Your task to perform on an android device: Open the Play Movies app and select the watchlist tab. Image 0: 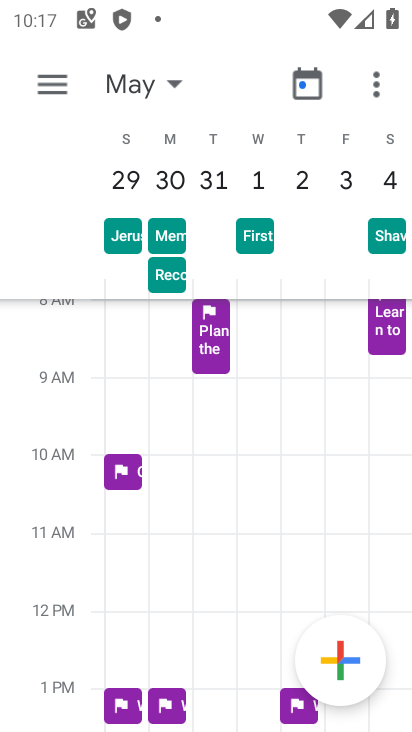
Step 0: press home button
Your task to perform on an android device: Open the Play Movies app and select the watchlist tab. Image 1: 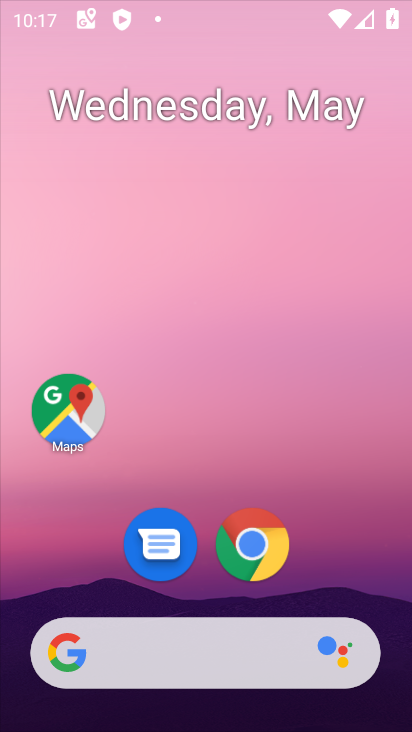
Step 1: drag from (228, 665) to (352, 105)
Your task to perform on an android device: Open the Play Movies app and select the watchlist tab. Image 2: 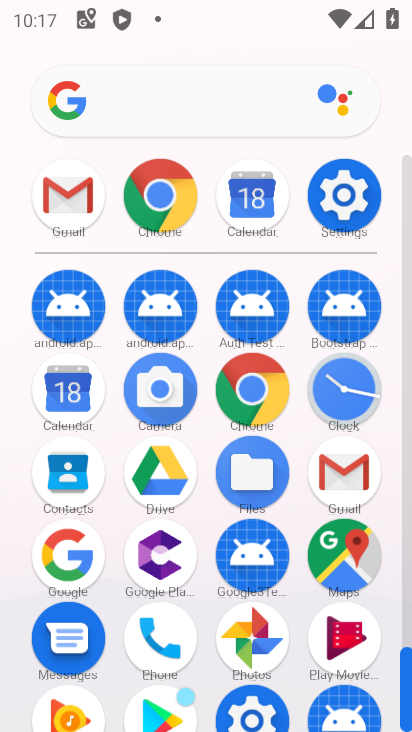
Step 2: click (345, 650)
Your task to perform on an android device: Open the Play Movies app and select the watchlist tab. Image 3: 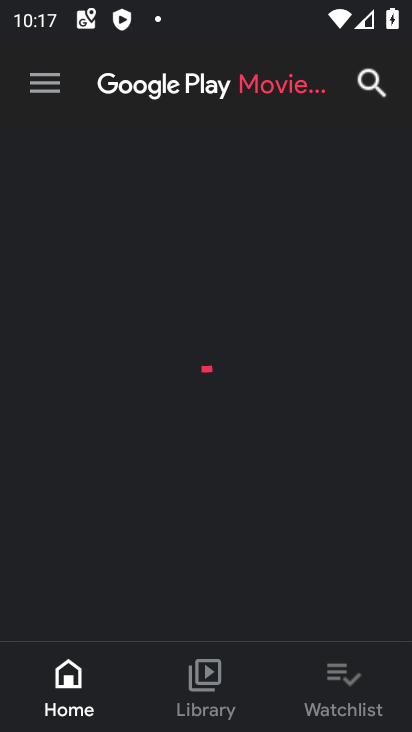
Step 3: drag from (300, 711) to (269, 435)
Your task to perform on an android device: Open the Play Movies app and select the watchlist tab. Image 4: 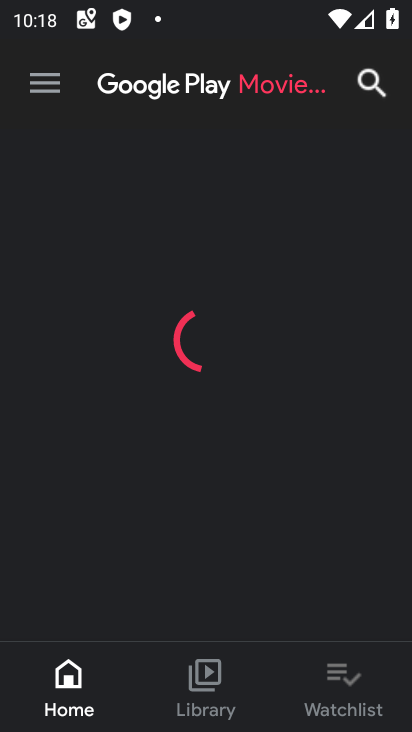
Step 4: click (347, 676)
Your task to perform on an android device: Open the Play Movies app and select the watchlist tab. Image 5: 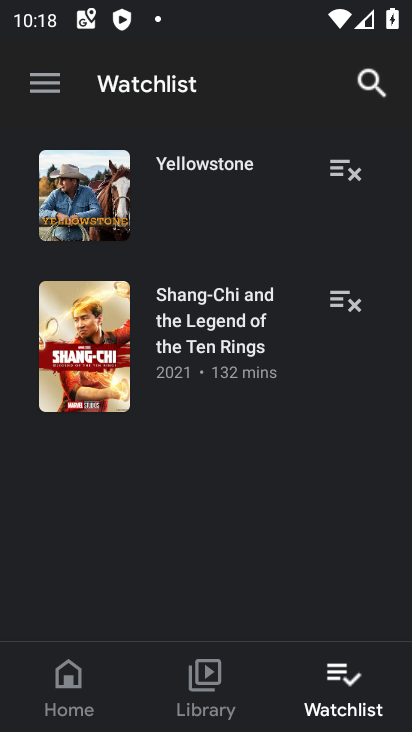
Step 5: task complete